Your task to perform on an android device: open app "WhatsApp Messenger" (install if not already installed), go to login, and select forgot password Image 0: 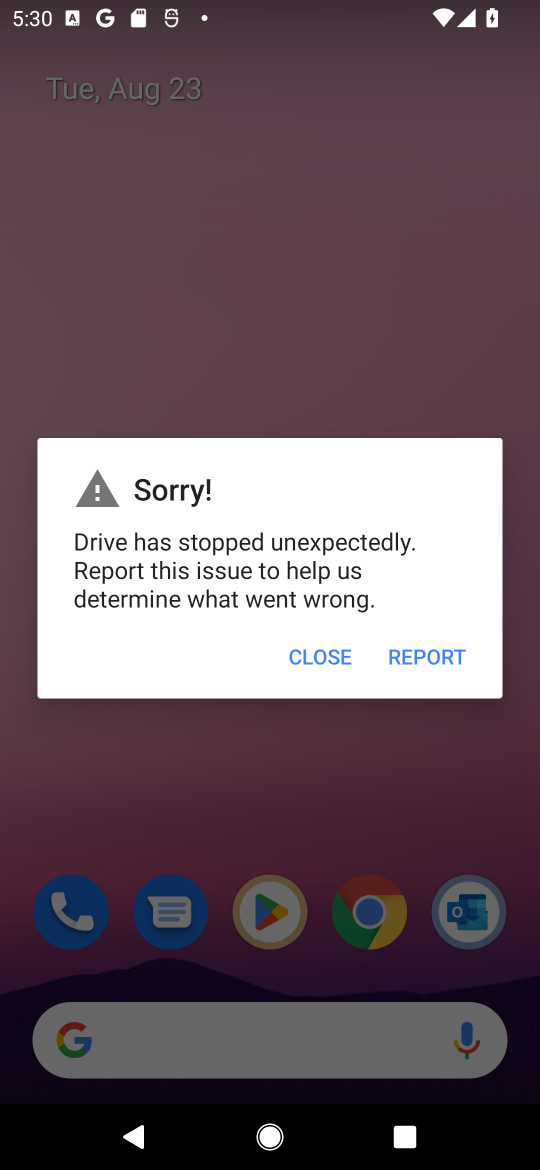
Step 0: press home button
Your task to perform on an android device: open app "WhatsApp Messenger" (install if not already installed), go to login, and select forgot password Image 1: 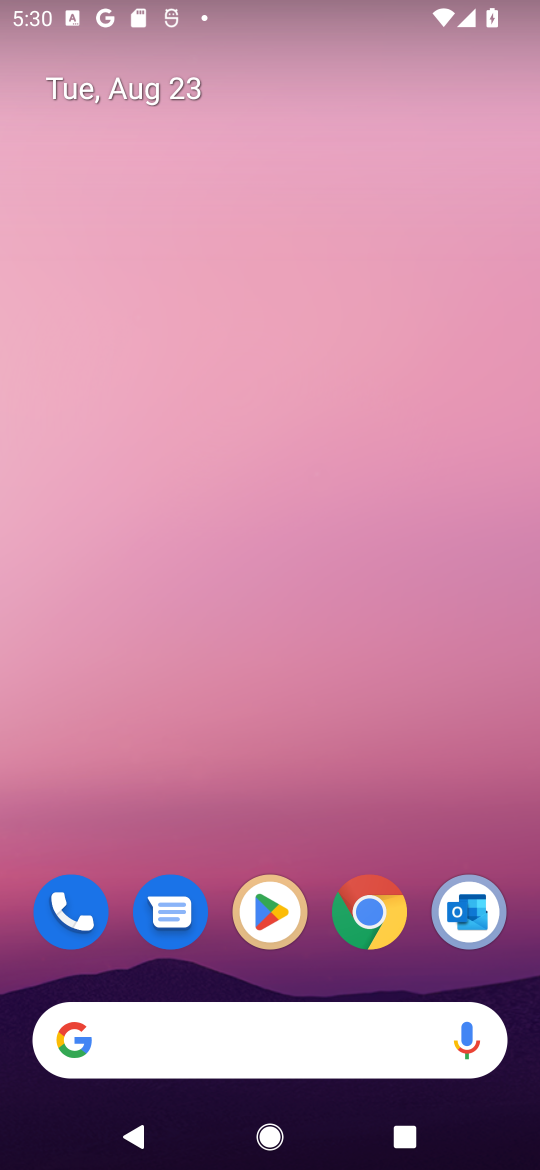
Step 1: click (261, 924)
Your task to perform on an android device: open app "WhatsApp Messenger" (install if not already installed), go to login, and select forgot password Image 2: 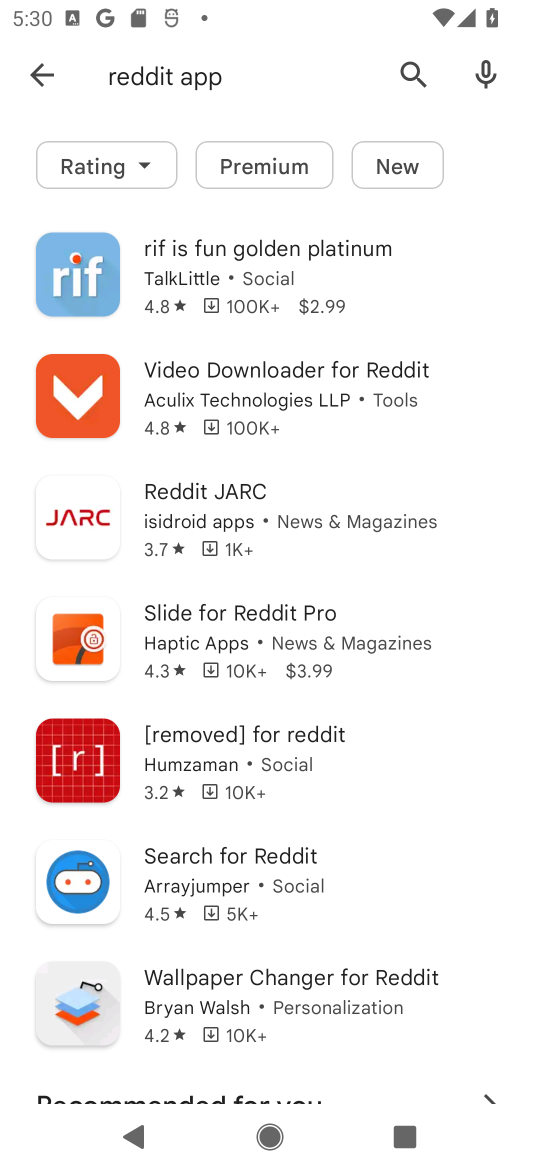
Step 2: click (35, 87)
Your task to perform on an android device: open app "WhatsApp Messenger" (install if not already installed), go to login, and select forgot password Image 3: 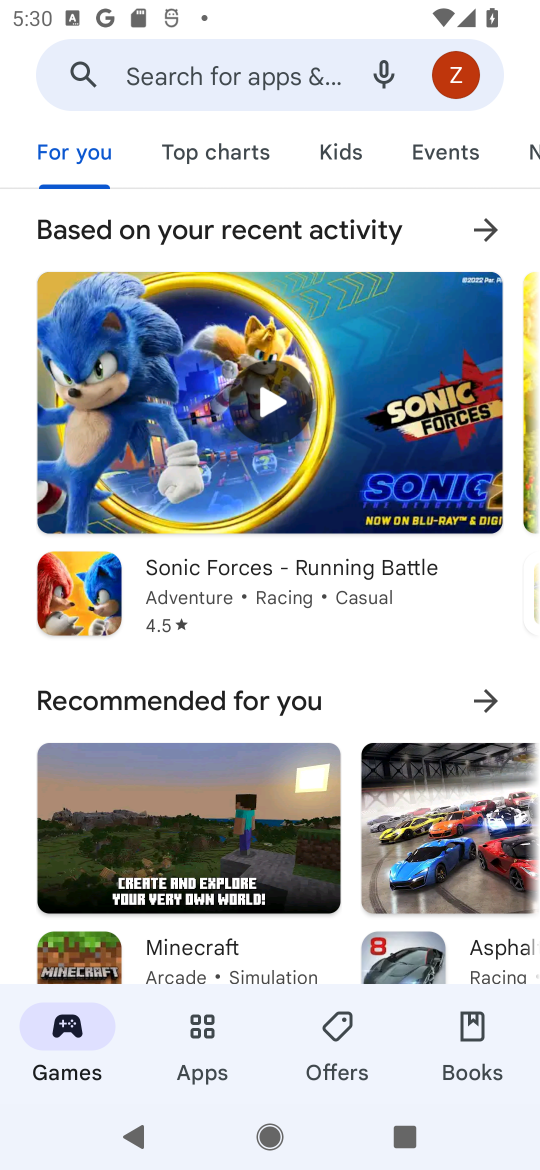
Step 3: click (251, 64)
Your task to perform on an android device: open app "WhatsApp Messenger" (install if not already installed), go to login, and select forgot password Image 4: 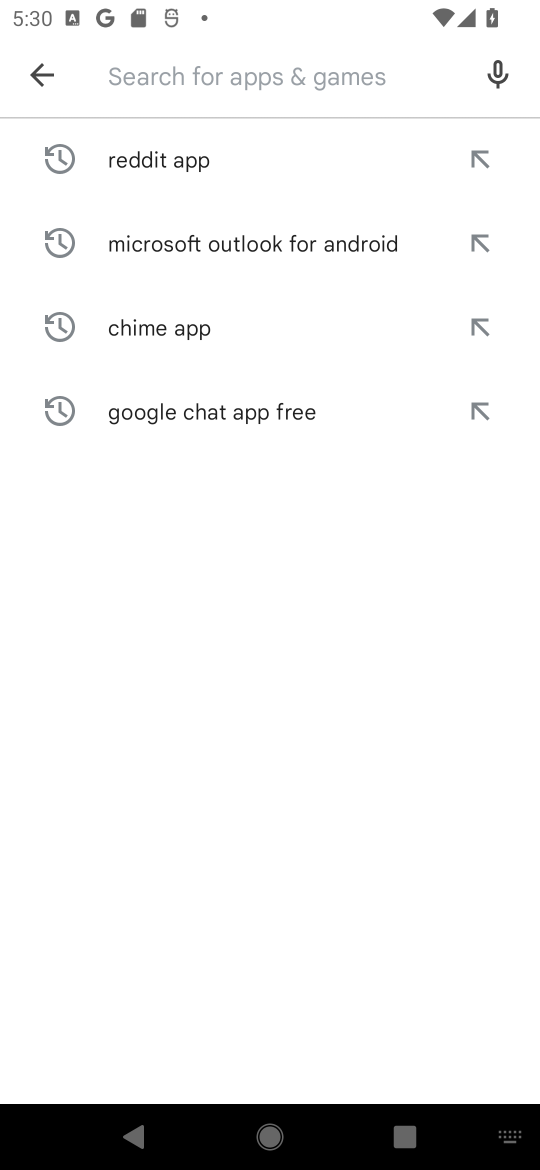
Step 4: type "WhatsApp Messenger "
Your task to perform on an android device: open app "WhatsApp Messenger" (install if not already installed), go to login, and select forgot password Image 5: 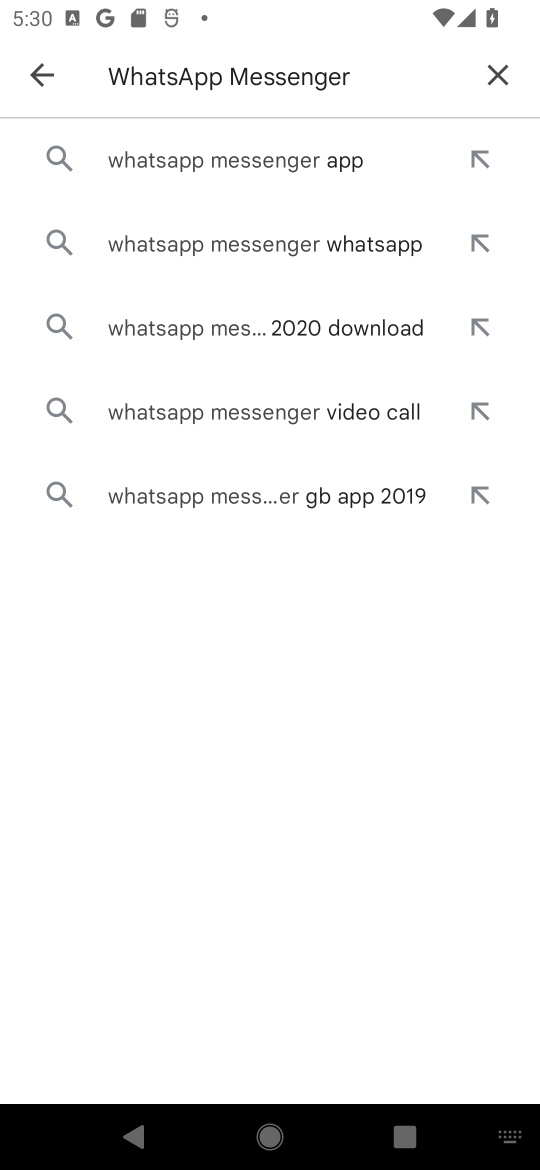
Step 5: click (265, 157)
Your task to perform on an android device: open app "WhatsApp Messenger" (install if not already installed), go to login, and select forgot password Image 6: 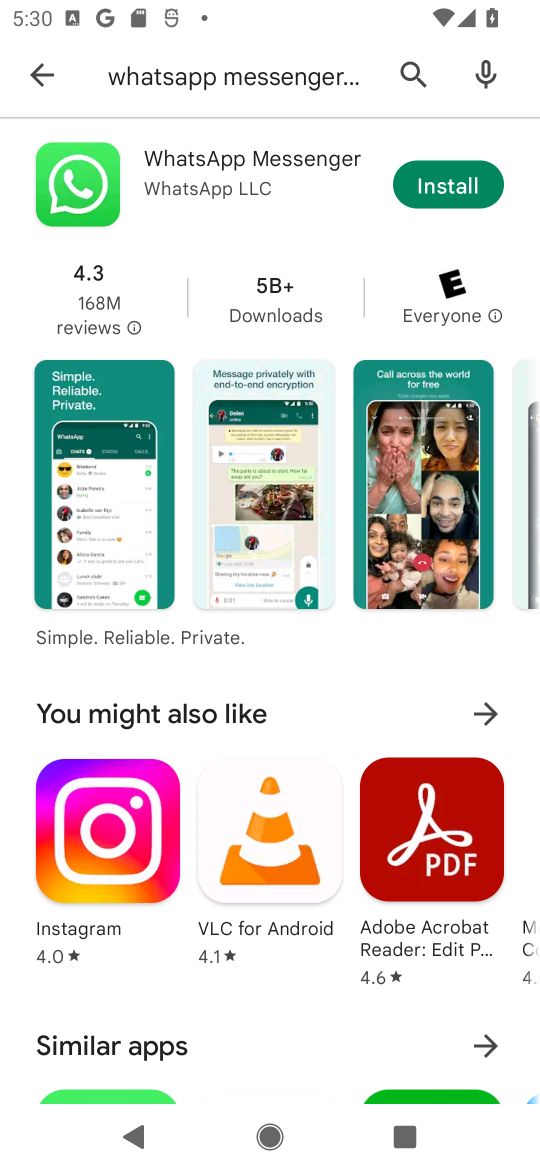
Step 6: click (436, 187)
Your task to perform on an android device: open app "WhatsApp Messenger" (install if not already installed), go to login, and select forgot password Image 7: 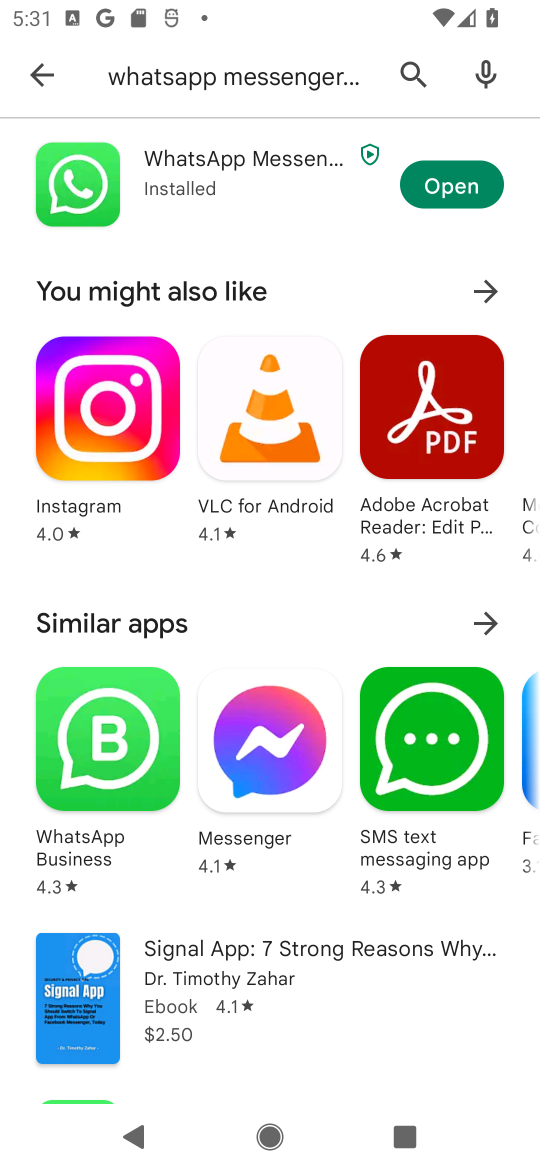
Step 7: click (436, 187)
Your task to perform on an android device: open app "WhatsApp Messenger" (install if not already installed), go to login, and select forgot password Image 8: 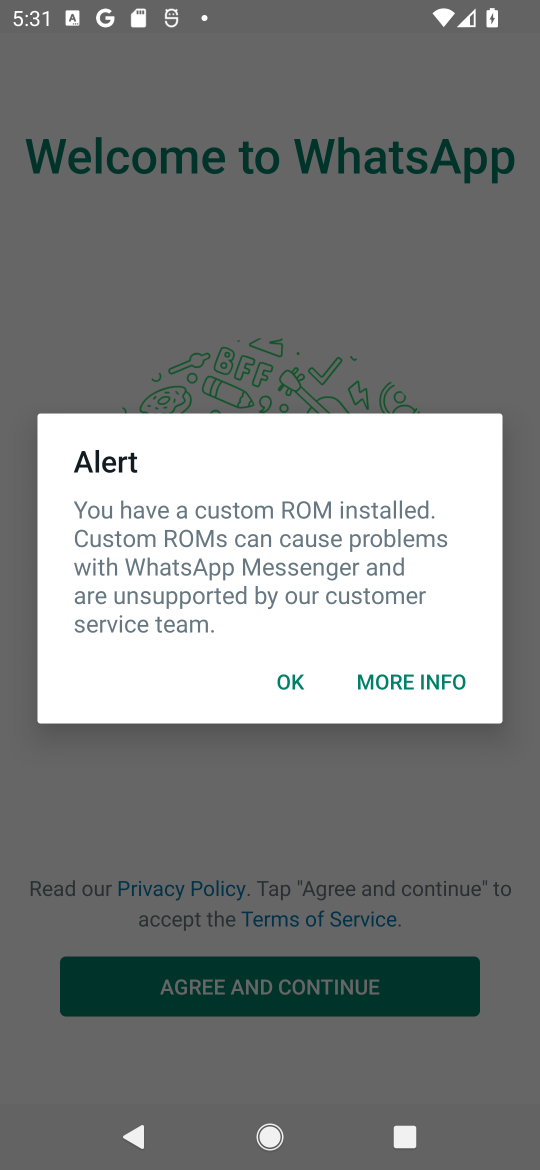
Step 8: task complete